Your task to perform on an android device: Add "logitech g933" to the cart on newegg.com Image 0: 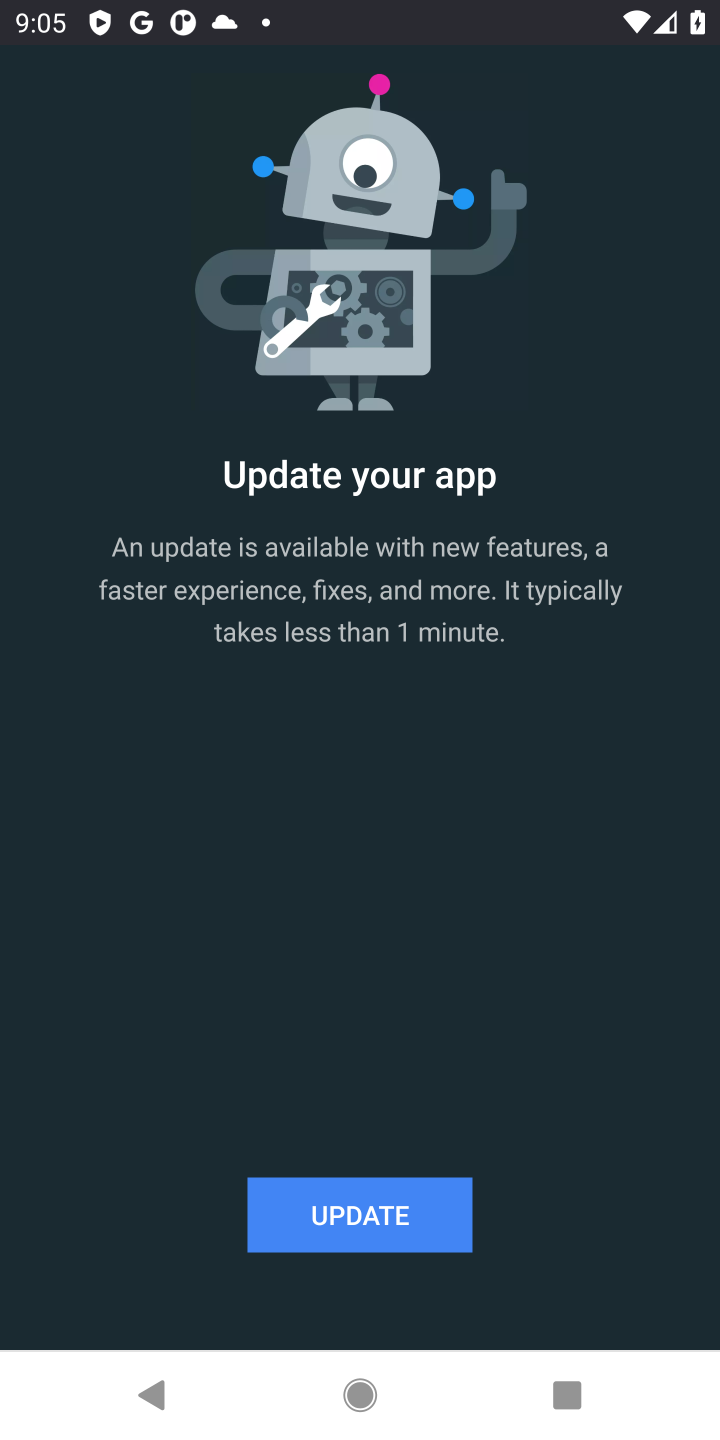
Step 0: press home button
Your task to perform on an android device: Add "logitech g933" to the cart on newegg.com Image 1: 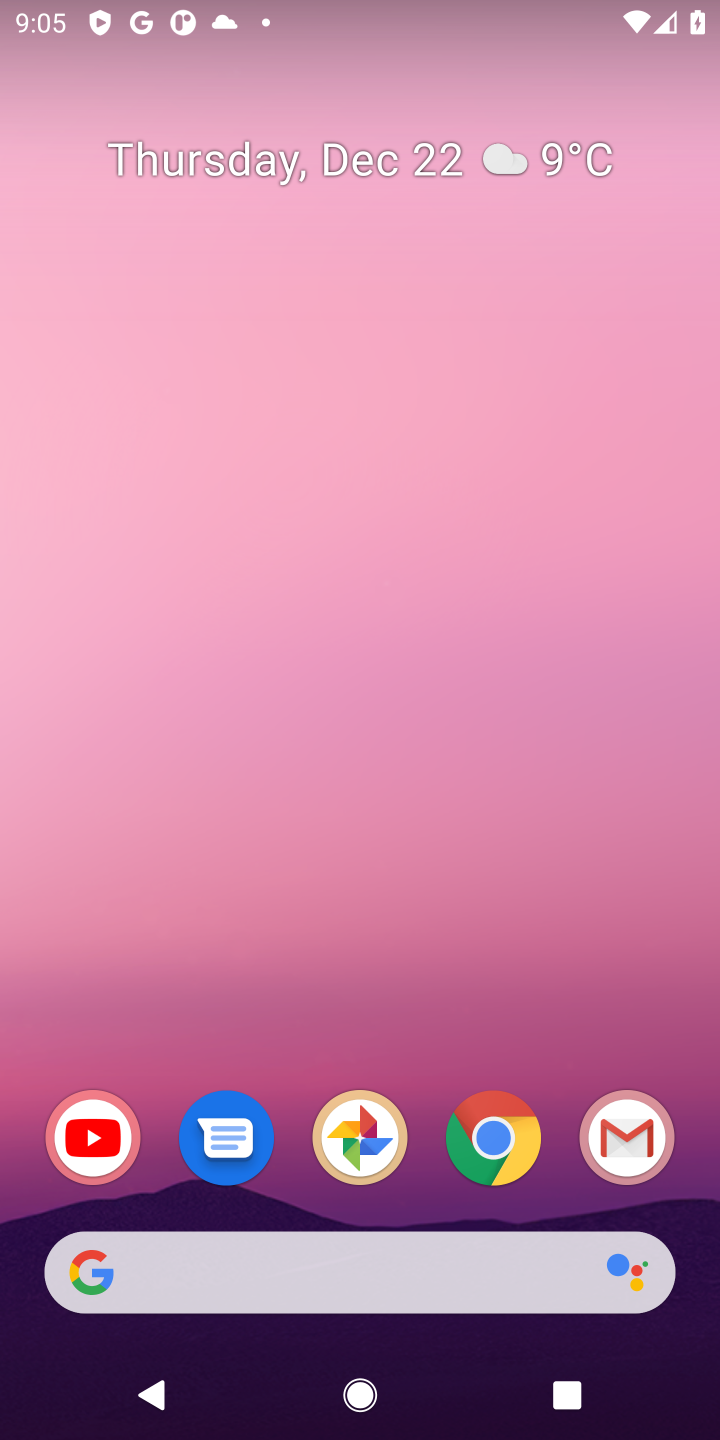
Step 1: click (498, 1134)
Your task to perform on an android device: Add "logitech g933" to the cart on newegg.com Image 2: 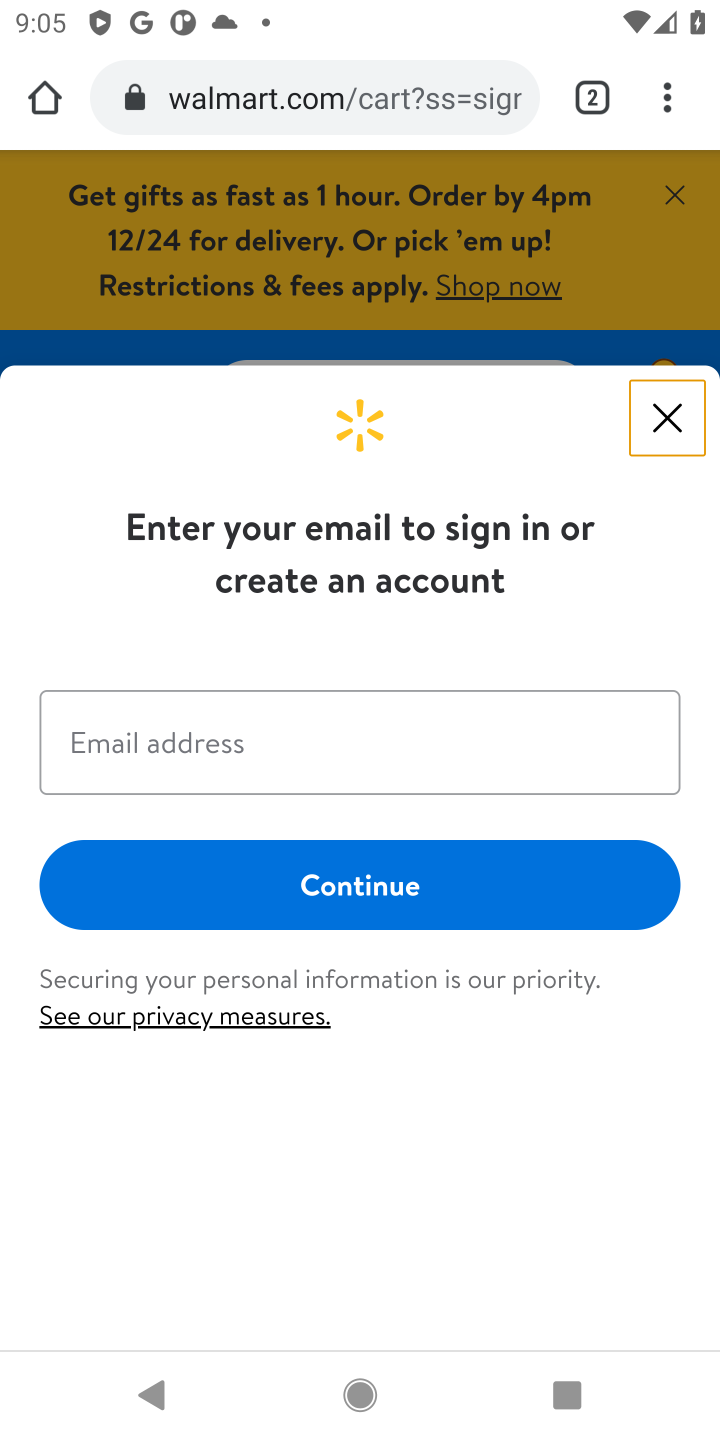
Step 2: click (313, 116)
Your task to perform on an android device: Add "logitech g933" to the cart on newegg.com Image 3: 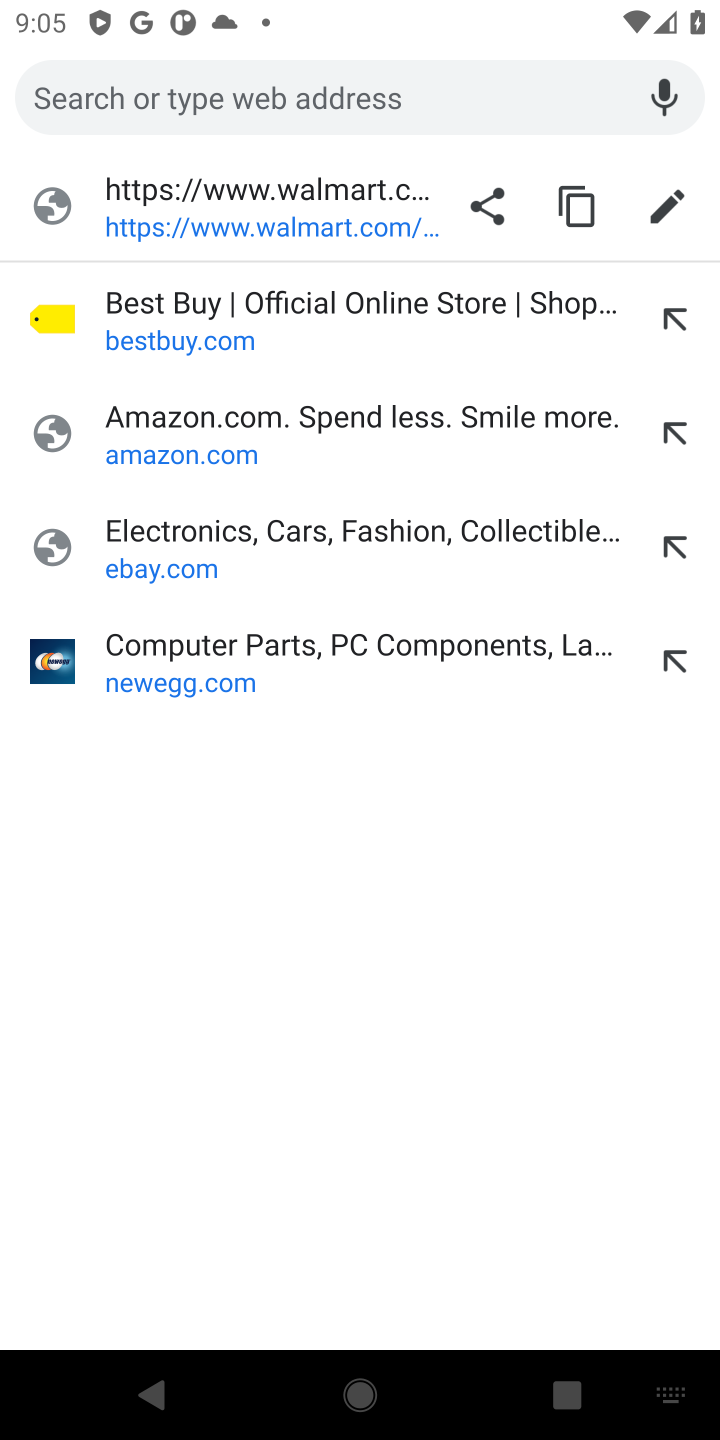
Step 3: type "newegg.com"
Your task to perform on an android device: Add "logitech g933" to the cart on newegg.com Image 4: 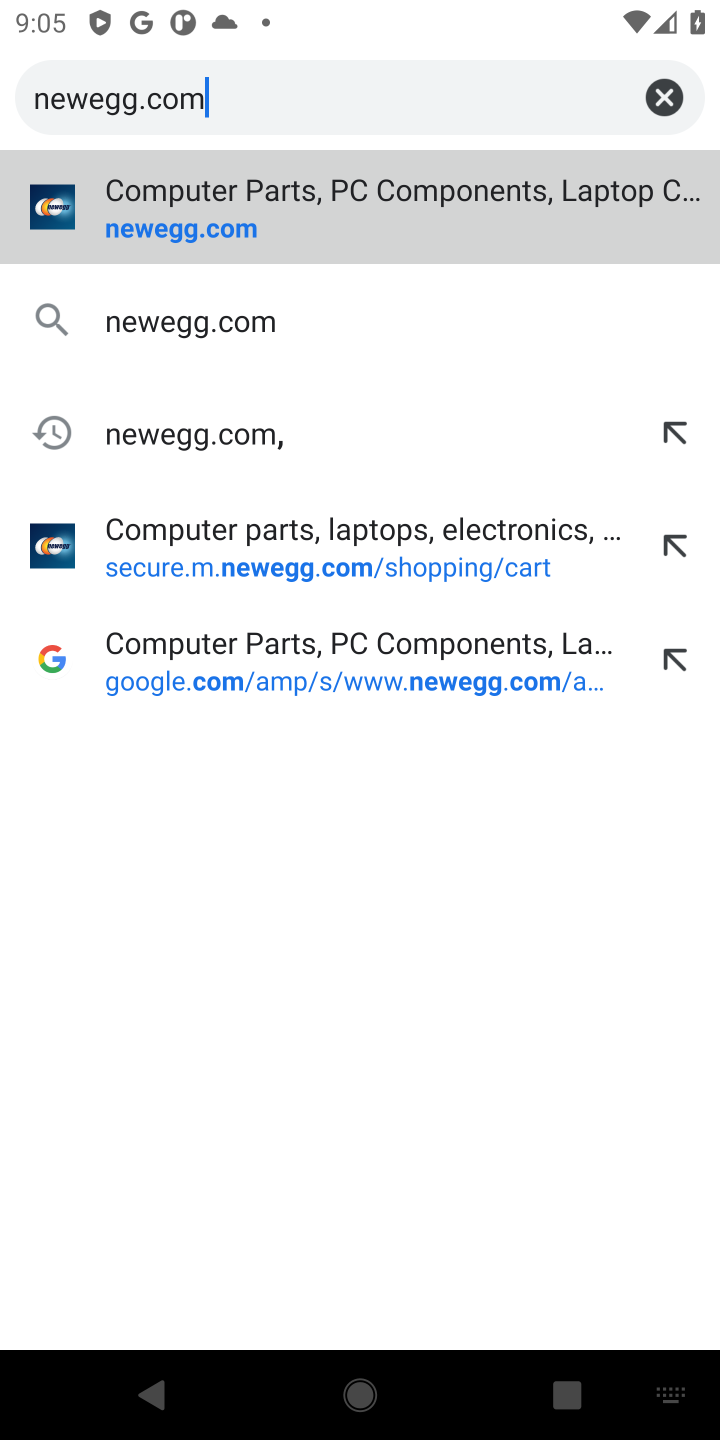
Step 4: click (458, 207)
Your task to perform on an android device: Add "logitech g933" to the cart on newegg.com Image 5: 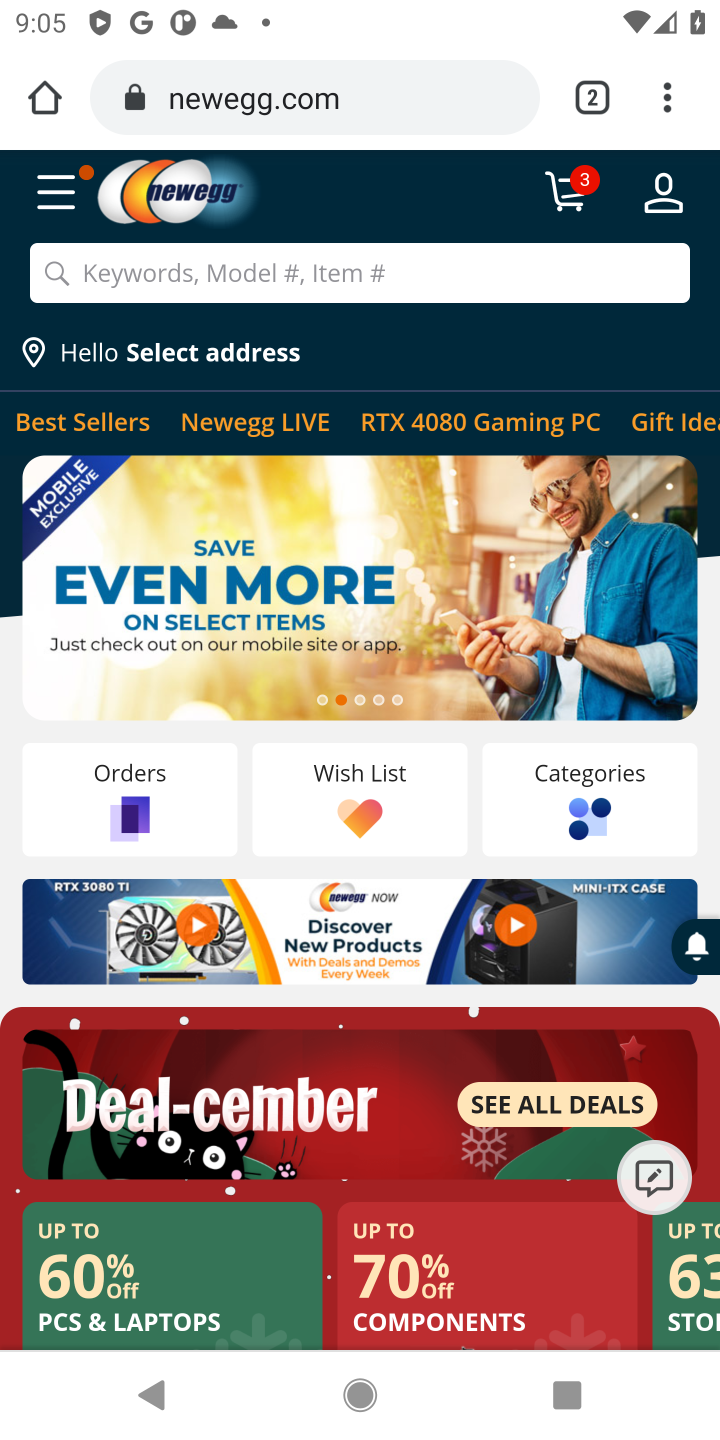
Step 5: click (484, 274)
Your task to perform on an android device: Add "logitech g933" to the cart on newegg.com Image 6: 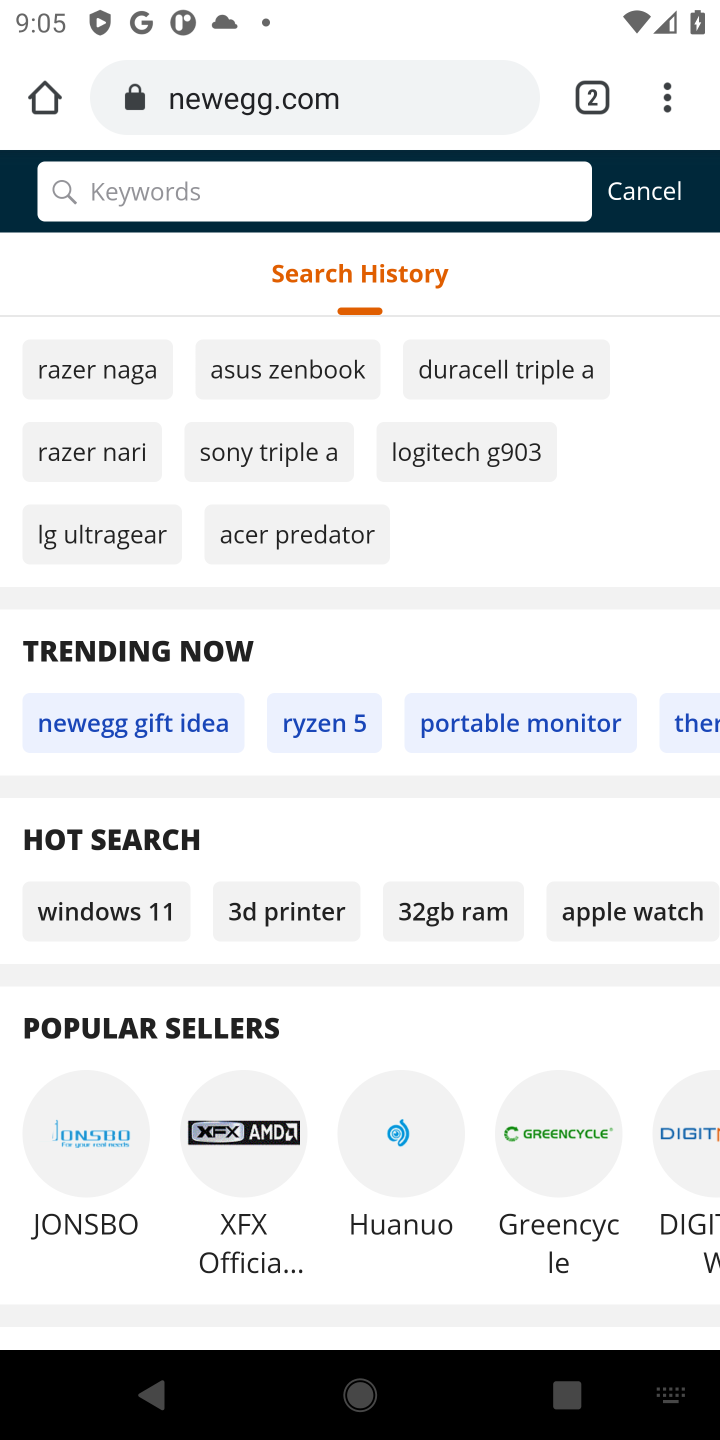
Step 6: type "logitech g933"
Your task to perform on an android device: Add "logitech g933" to the cart on newegg.com Image 7: 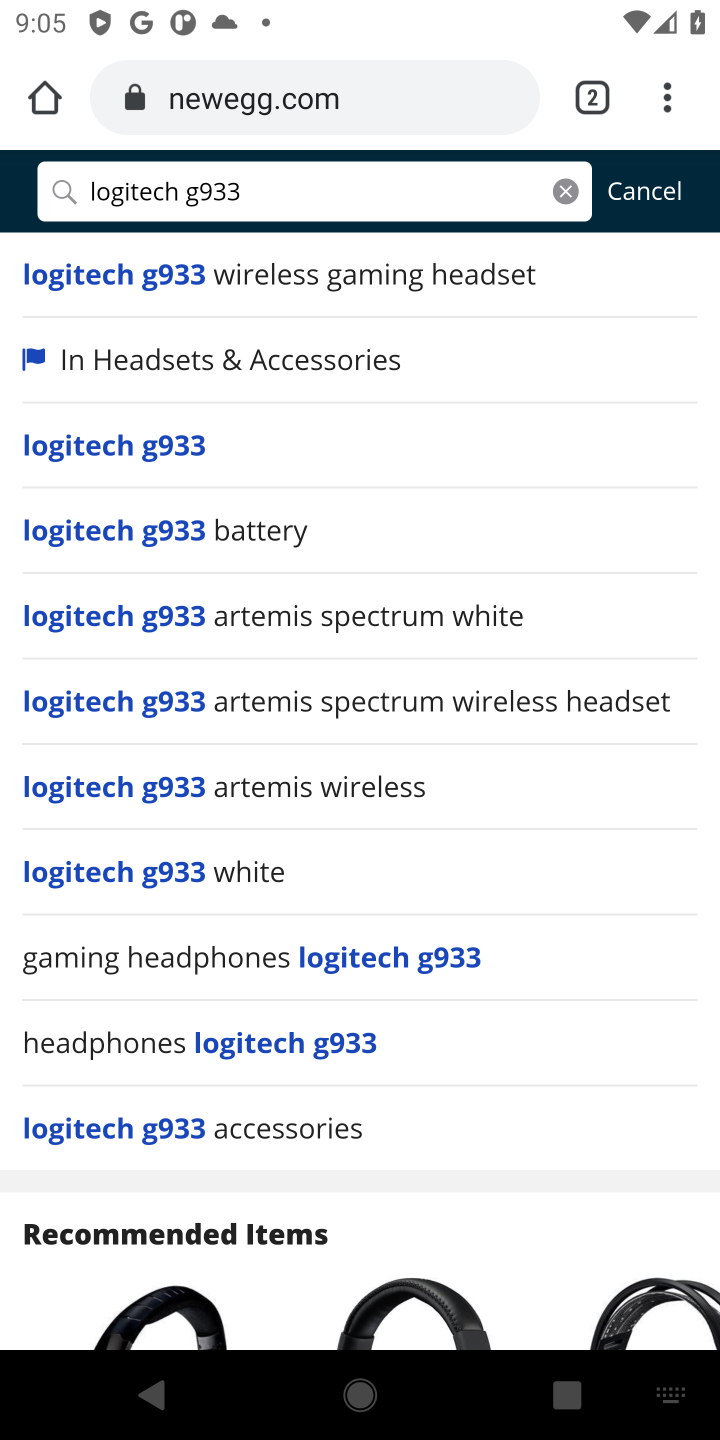
Step 7: press enter
Your task to perform on an android device: Add "logitech g933" to the cart on newegg.com Image 8: 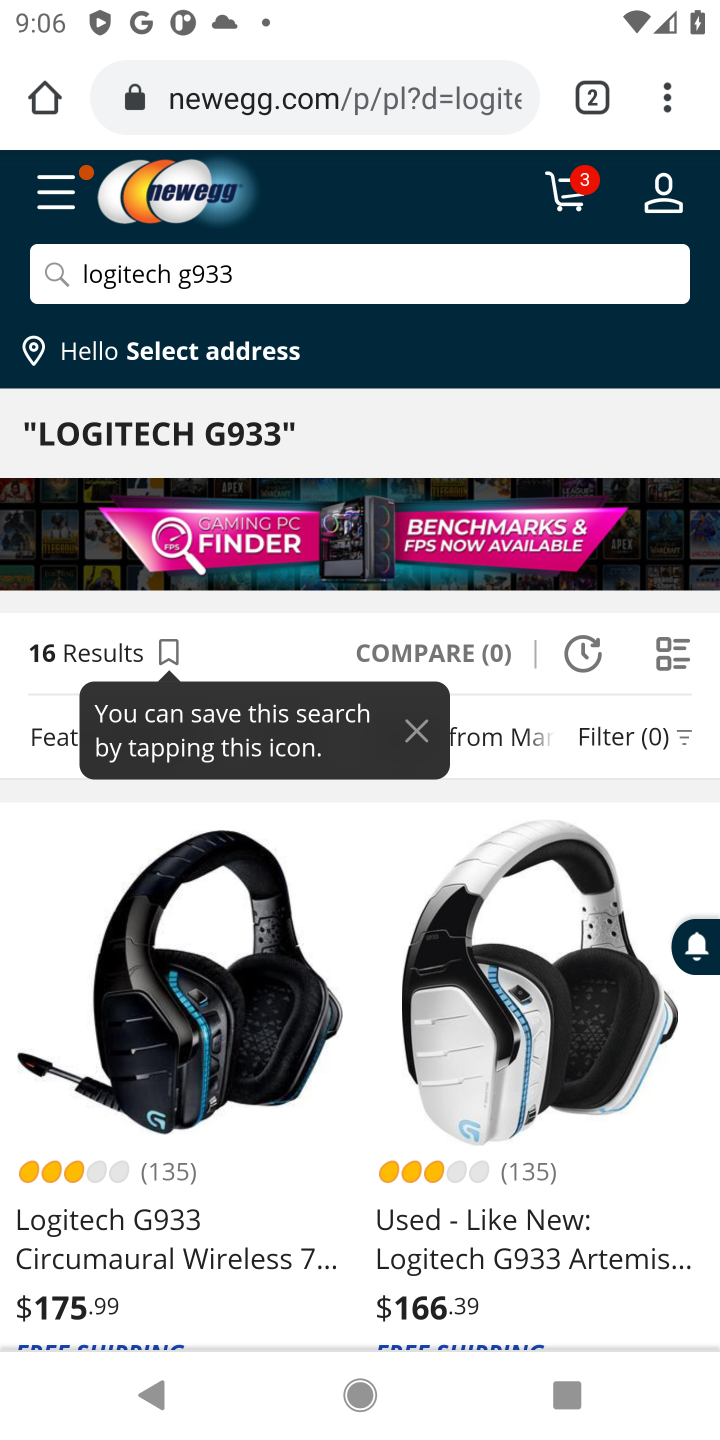
Step 8: drag from (314, 1041) to (330, 798)
Your task to perform on an android device: Add "logitech g933" to the cart on newegg.com Image 9: 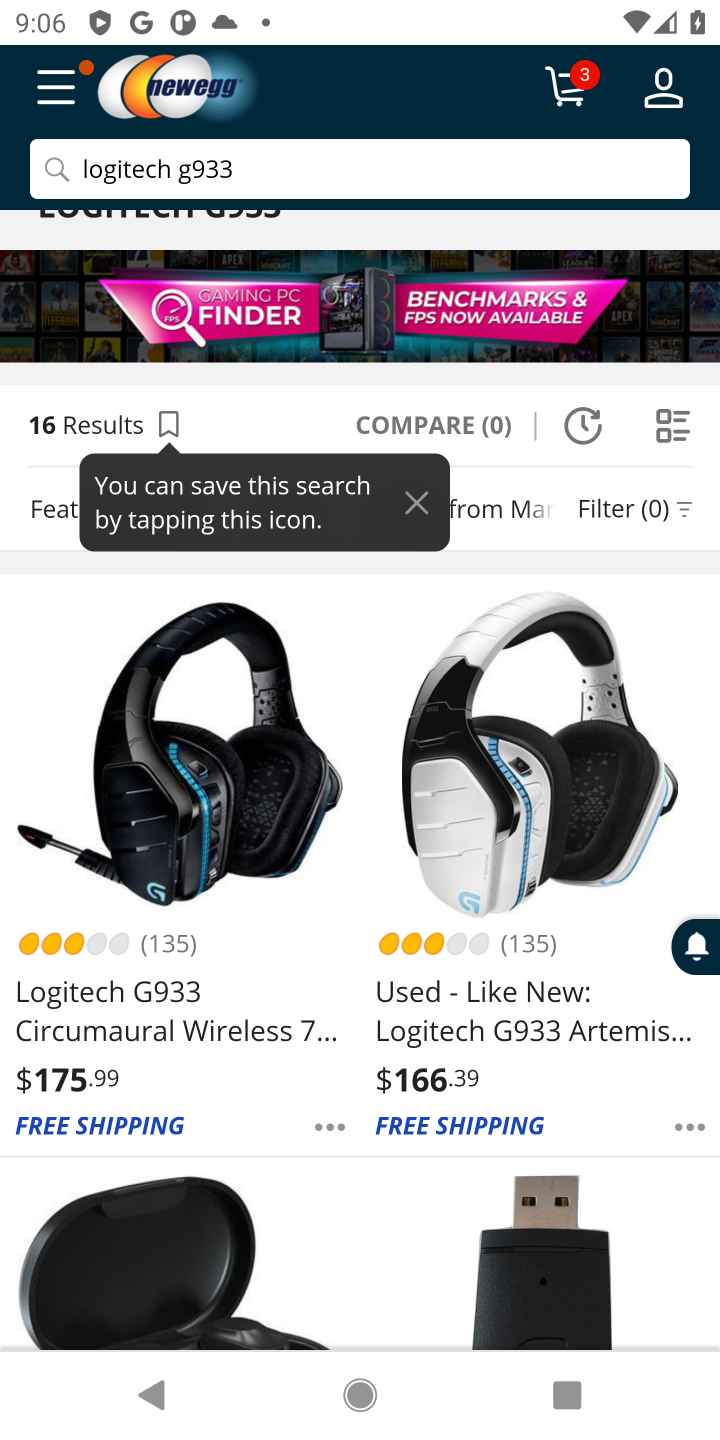
Step 9: click (120, 873)
Your task to perform on an android device: Add "logitech g933" to the cart on newegg.com Image 10: 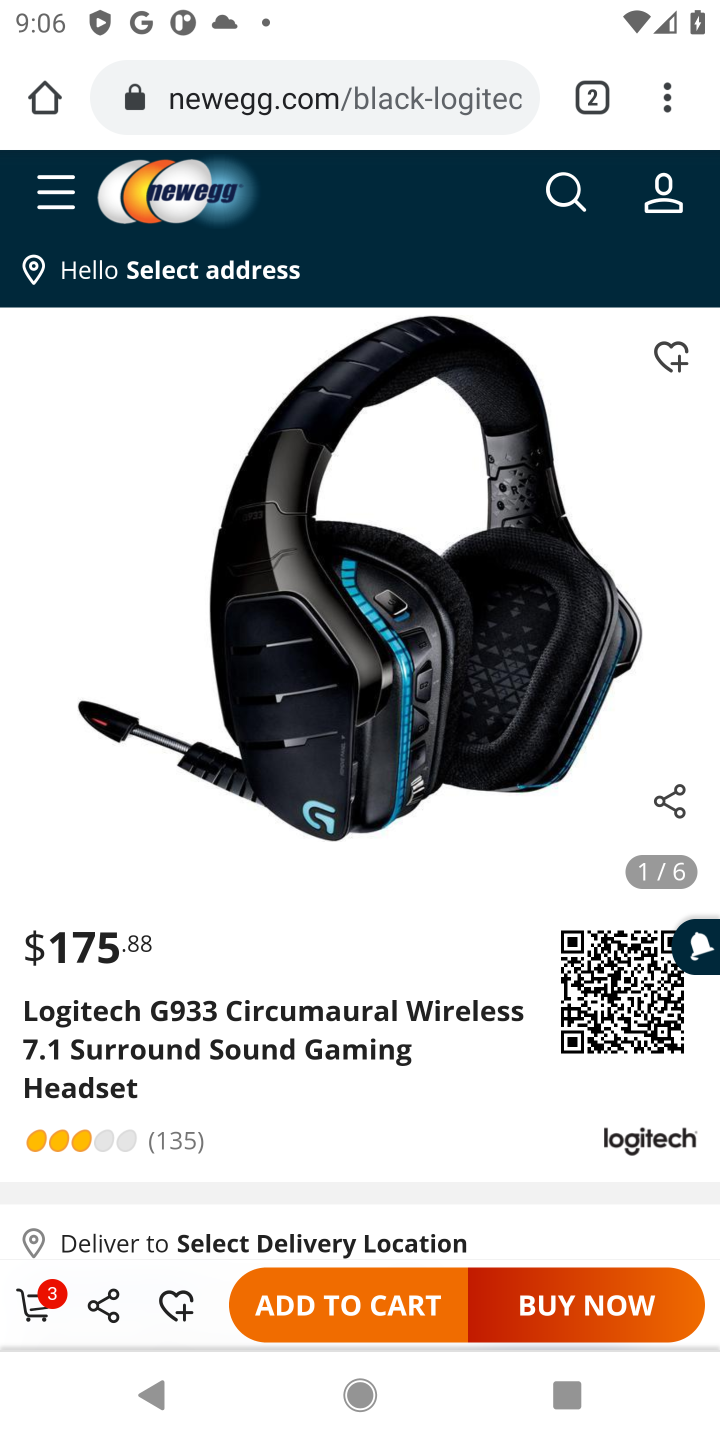
Step 10: click (368, 1312)
Your task to perform on an android device: Add "logitech g933" to the cart on newegg.com Image 11: 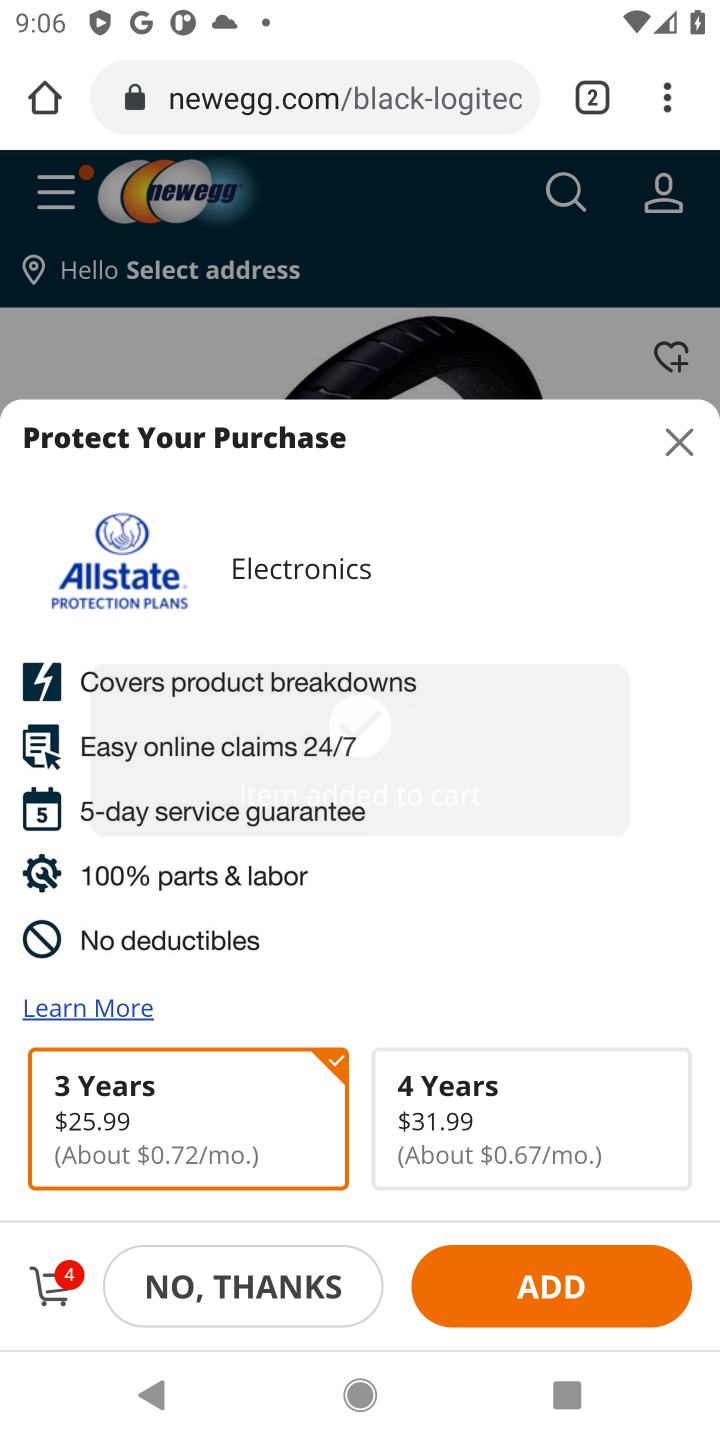
Step 11: click (543, 1298)
Your task to perform on an android device: Add "logitech g933" to the cart on newegg.com Image 12: 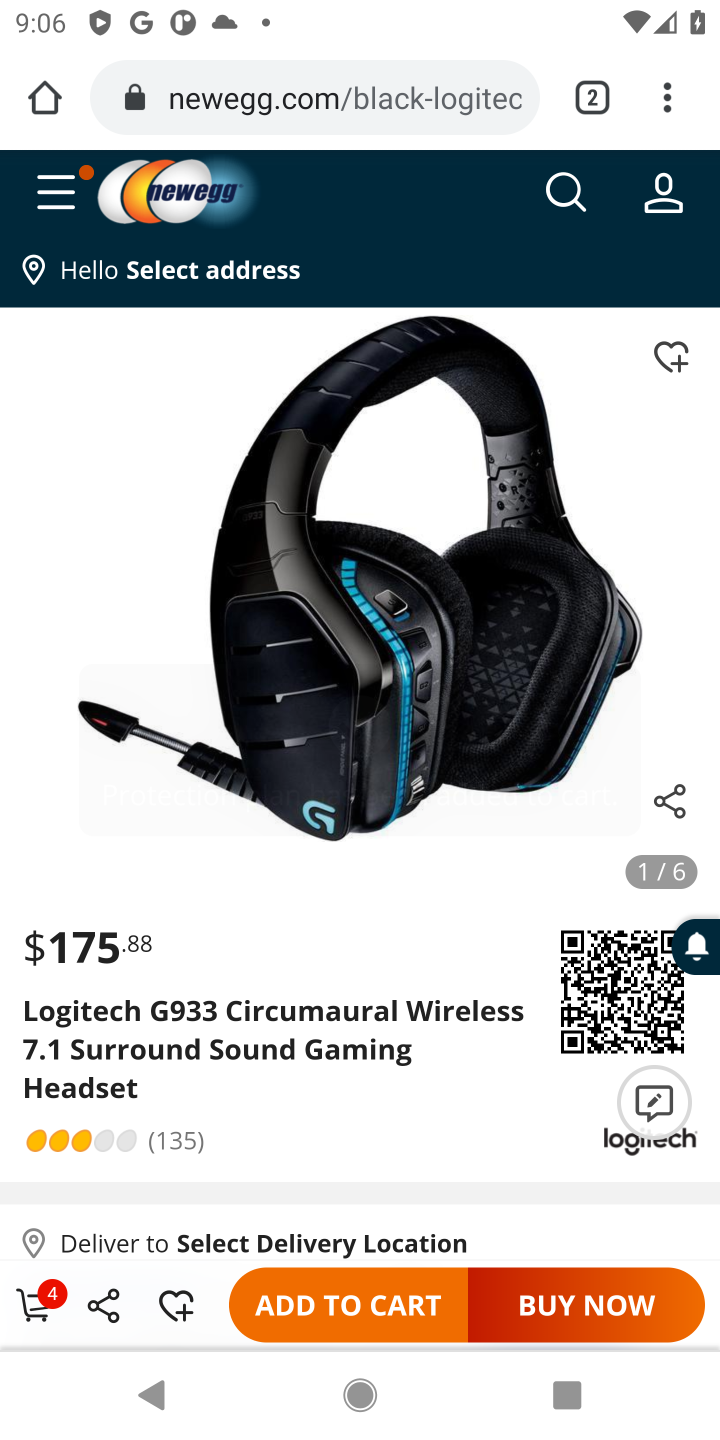
Step 12: click (40, 1316)
Your task to perform on an android device: Add "logitech g933" to the cart on newegg.com Image 13: 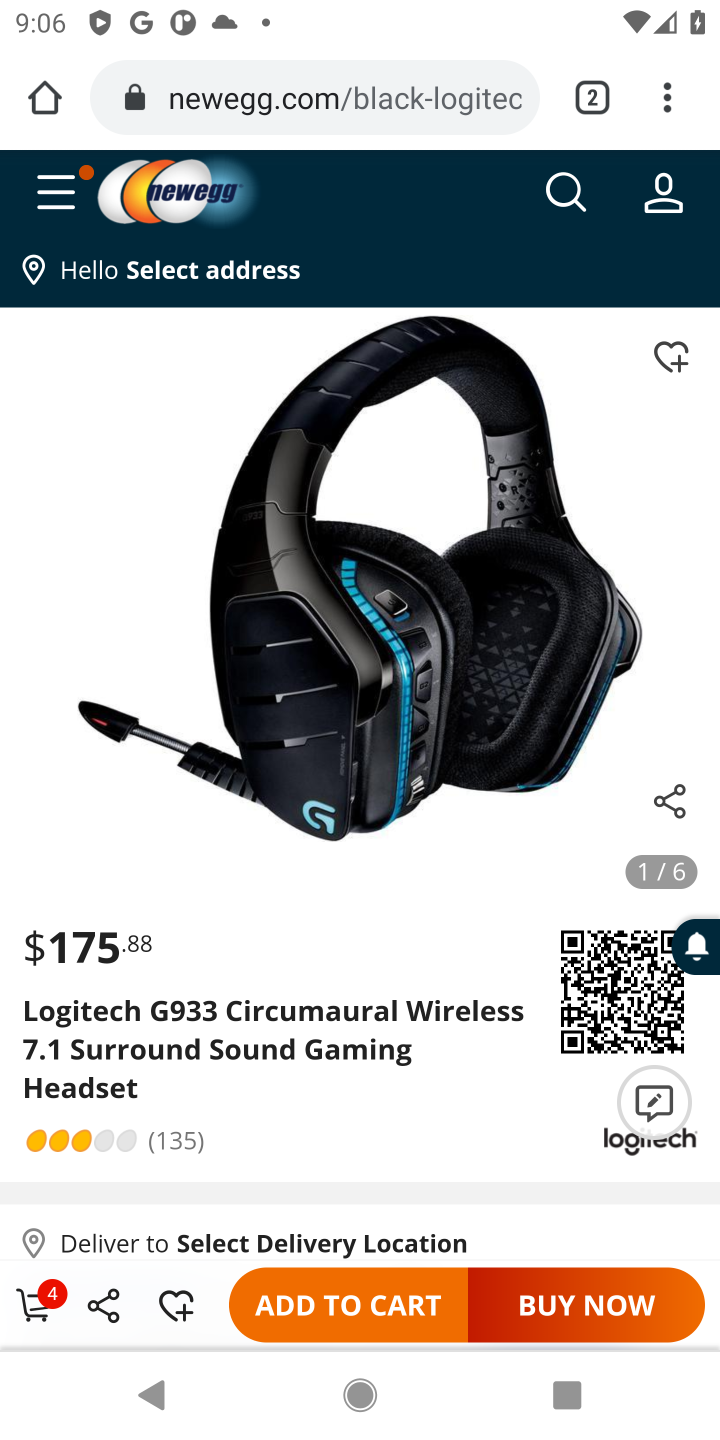
Step 13: click (53, 1313)
Your task to perform on an android device: Add "logitech g933" to the cart on newegg.com Image 14: 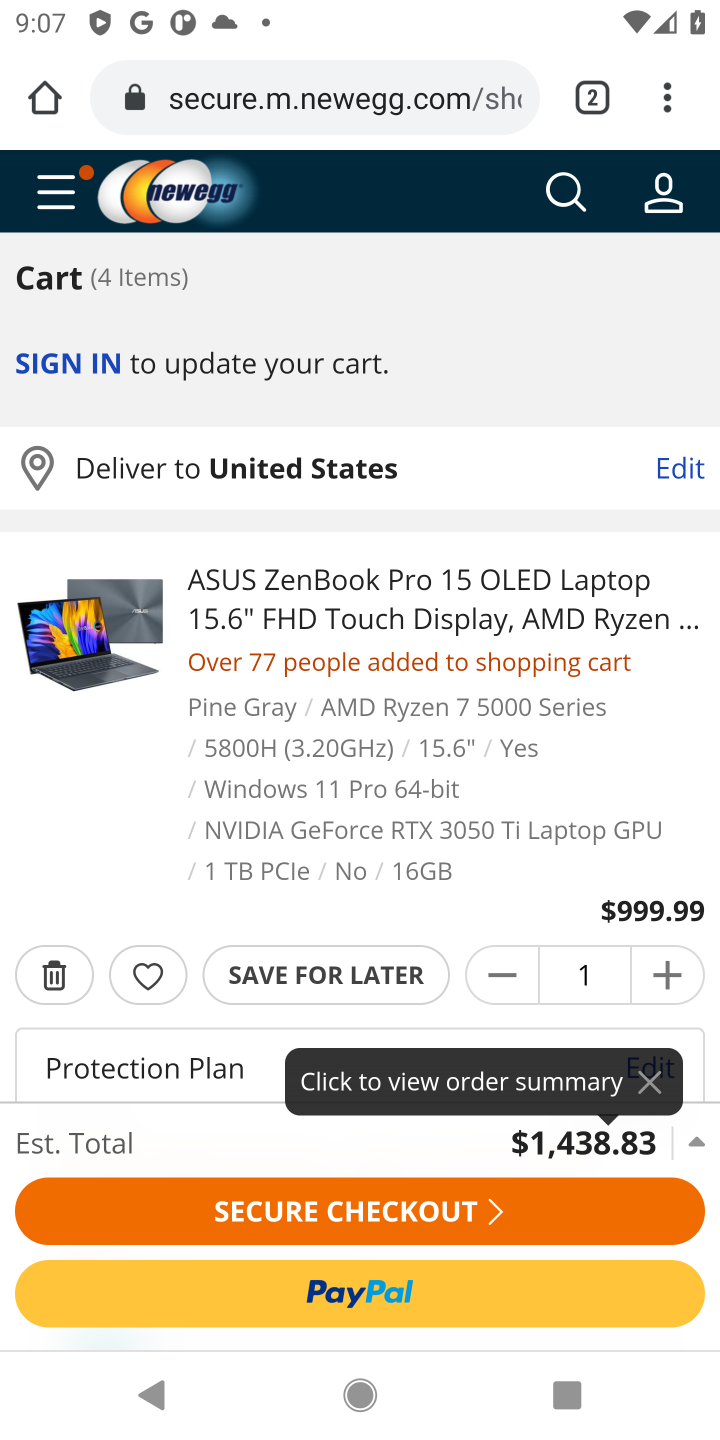
Step 14: task complete